Your task to perform on an android device: check out phone information Image 0: 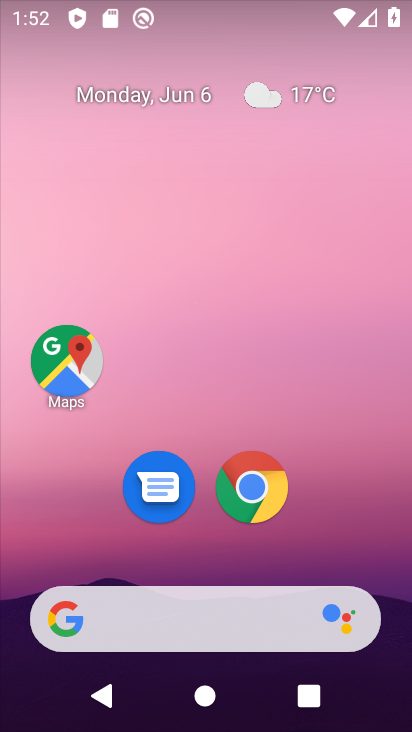
Step 0: drag from (244, 531) to (331, 108)
Your task to perform on an android device: check out phone information Image 1: 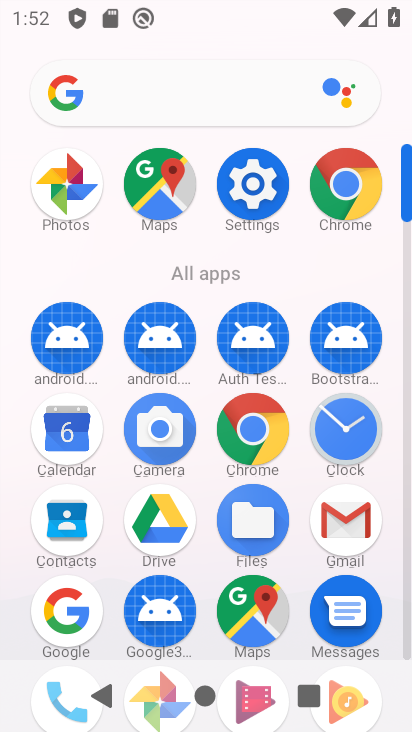
Step 1: click (249, 188)
Your task to perform on an android device: check out phone information Image 2: 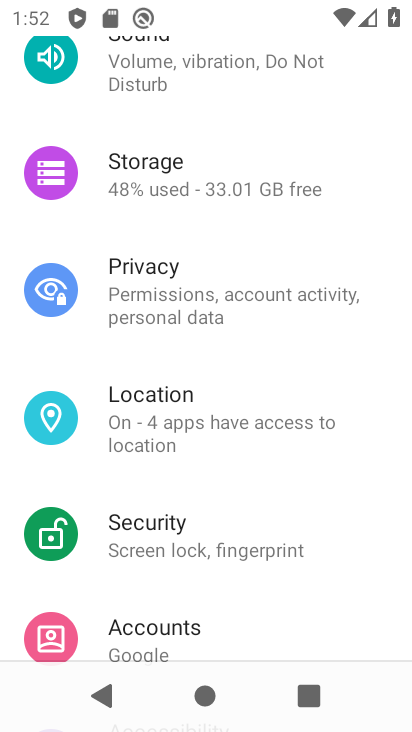
Step 2: drag from (205, 589) to (306, 164)
Your task to perform on an android device: check out phone information Image 3: 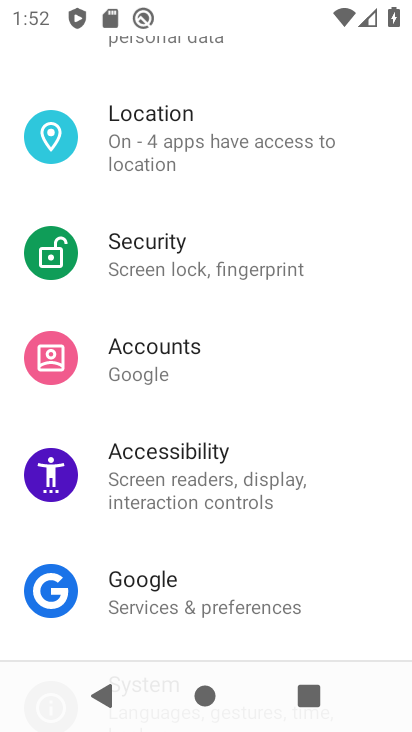
Step 3: drag from (186, 628) to (375, 184)
Your task to perform on an android device: check out phone information Image 4: 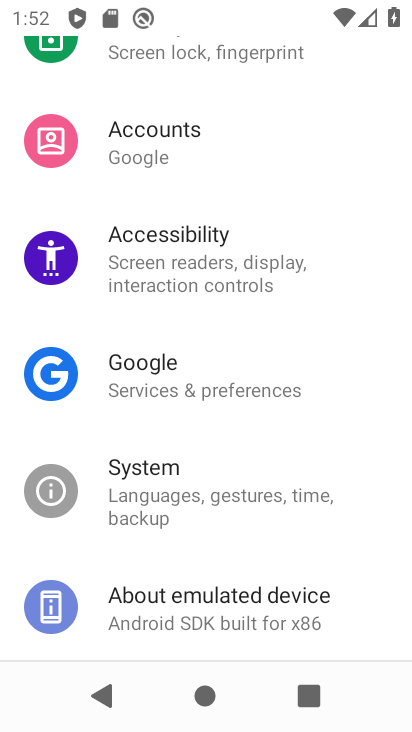
Step 4: click (197, 612)
Your task to perform on an android device: check out phone information Image 5: 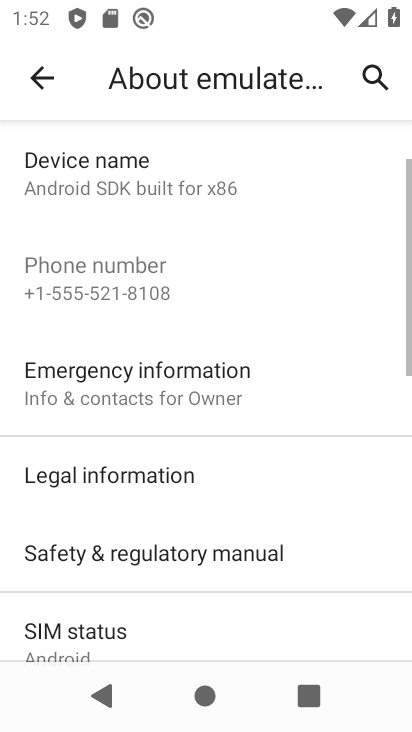
Step 5: click (105, 373)
Your task to perform on an android device: check out phone information Image 6: 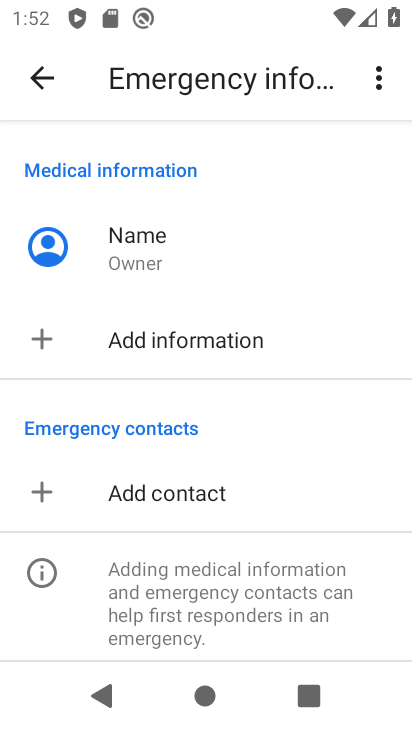
Step 6: task complete